Your task to perform on an android device: manage bookmarks in the chrome app Image 0: 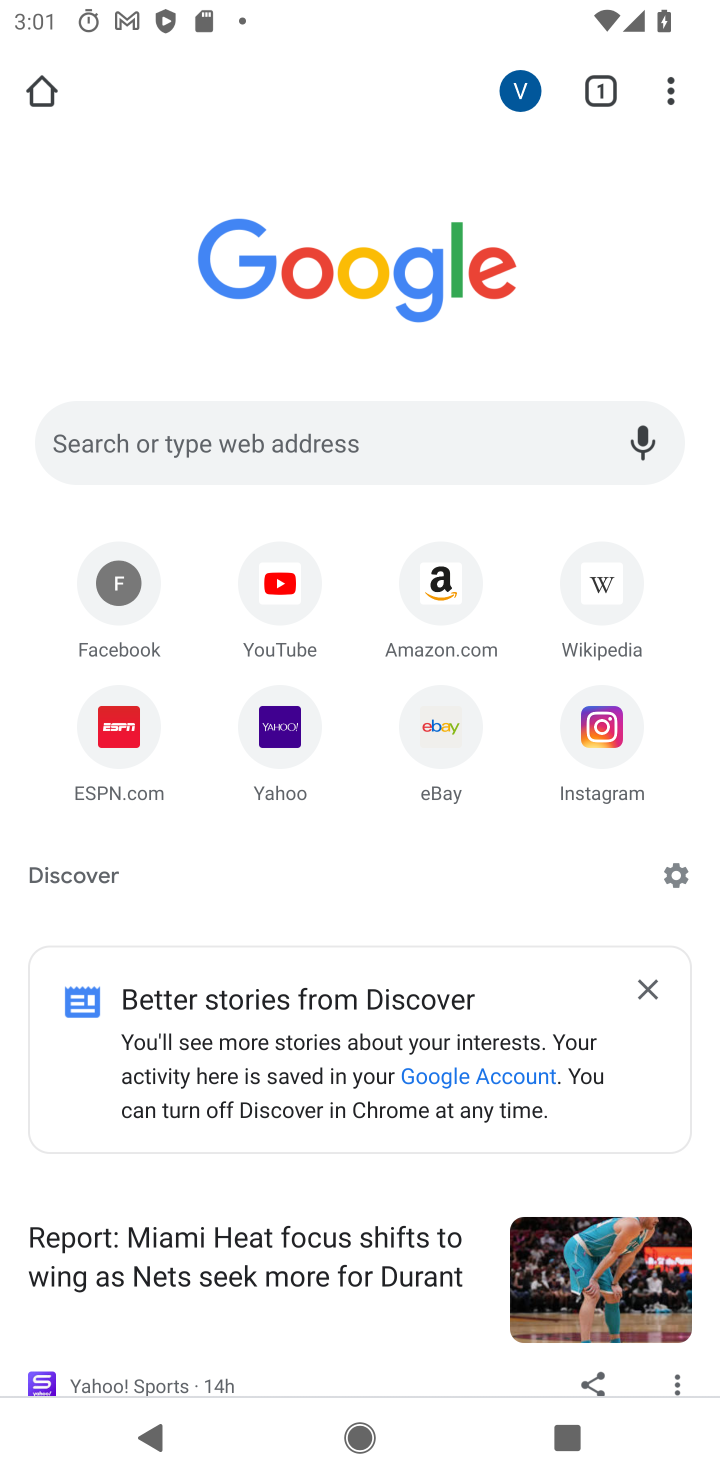
Step 0: press home button
Your task to perform on an android device: manage bookmarks in the chrome app Image 1: 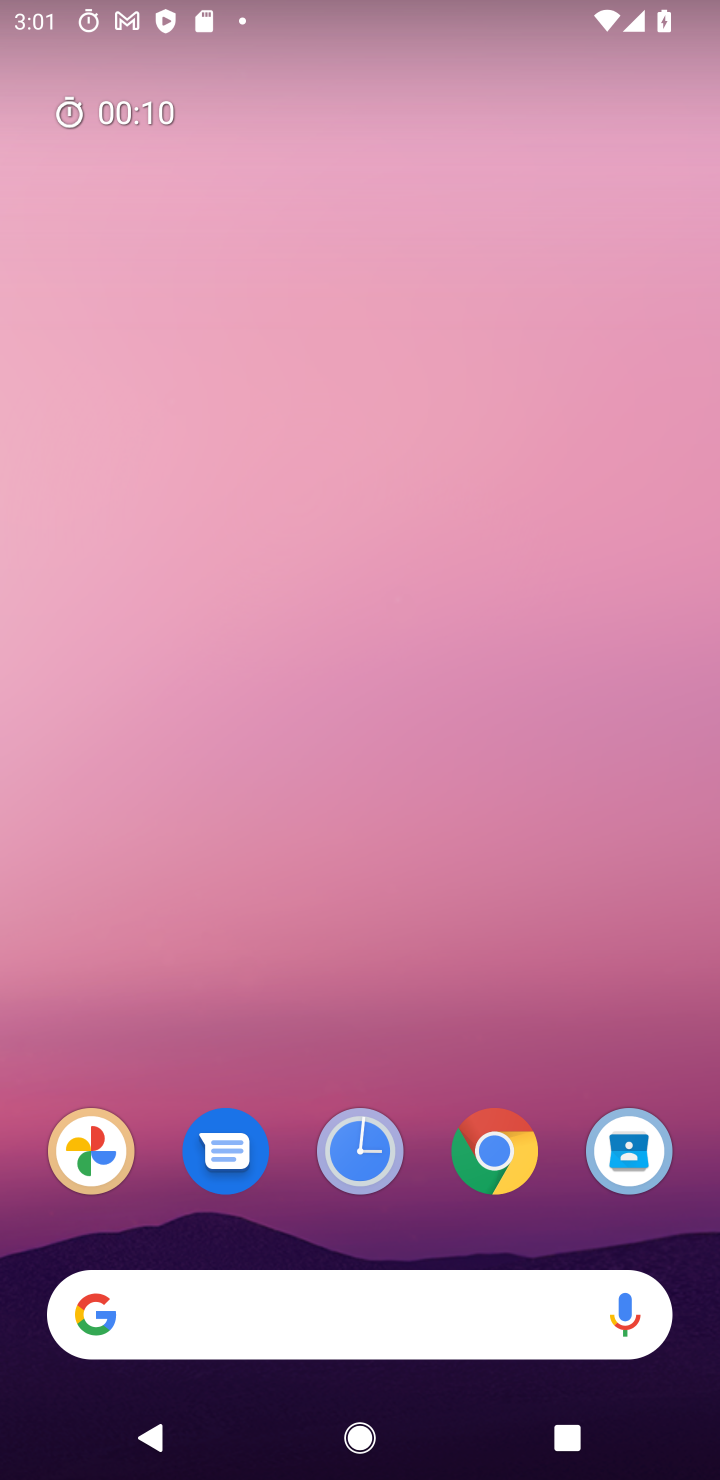
Step 1: drag from (382, 1115) to (377, 117)
Your task to perform on an android device: manage bookmarks in the chrome app Image 2: 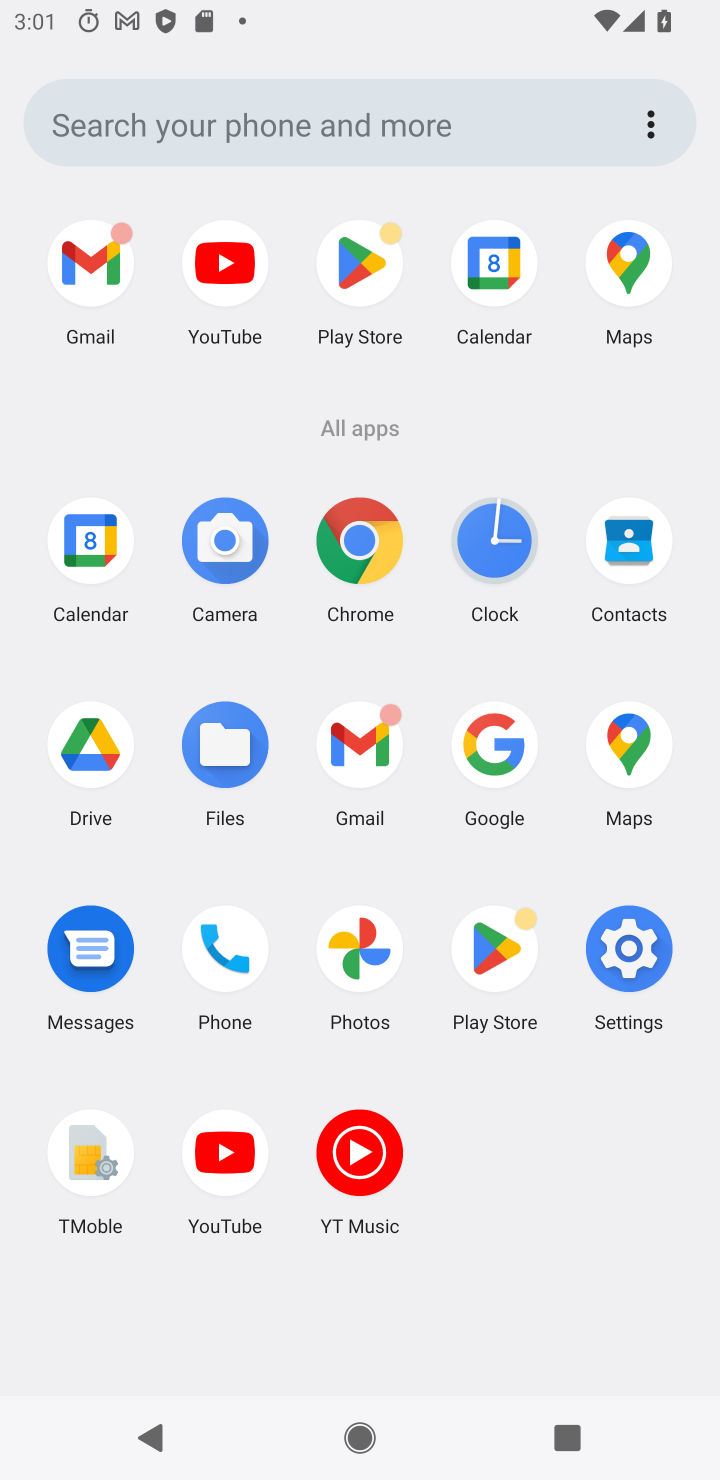
Step 2: click (359, 512)
Your task to perform on an android device: manage bookmarks in the chrome app Image 3: 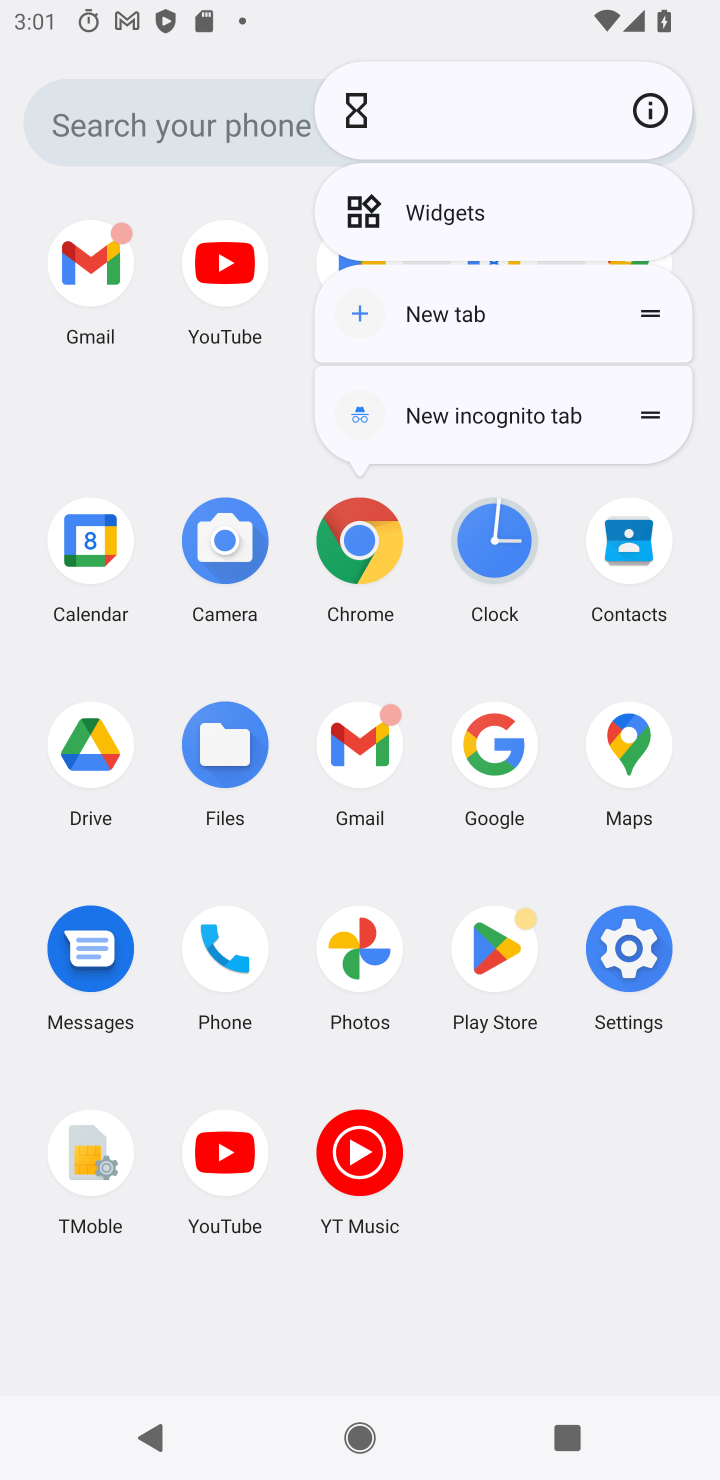
Step 3: click (359, 528)
Your task to perform on an android device: manage bookmarks in the chrome app Image 4: 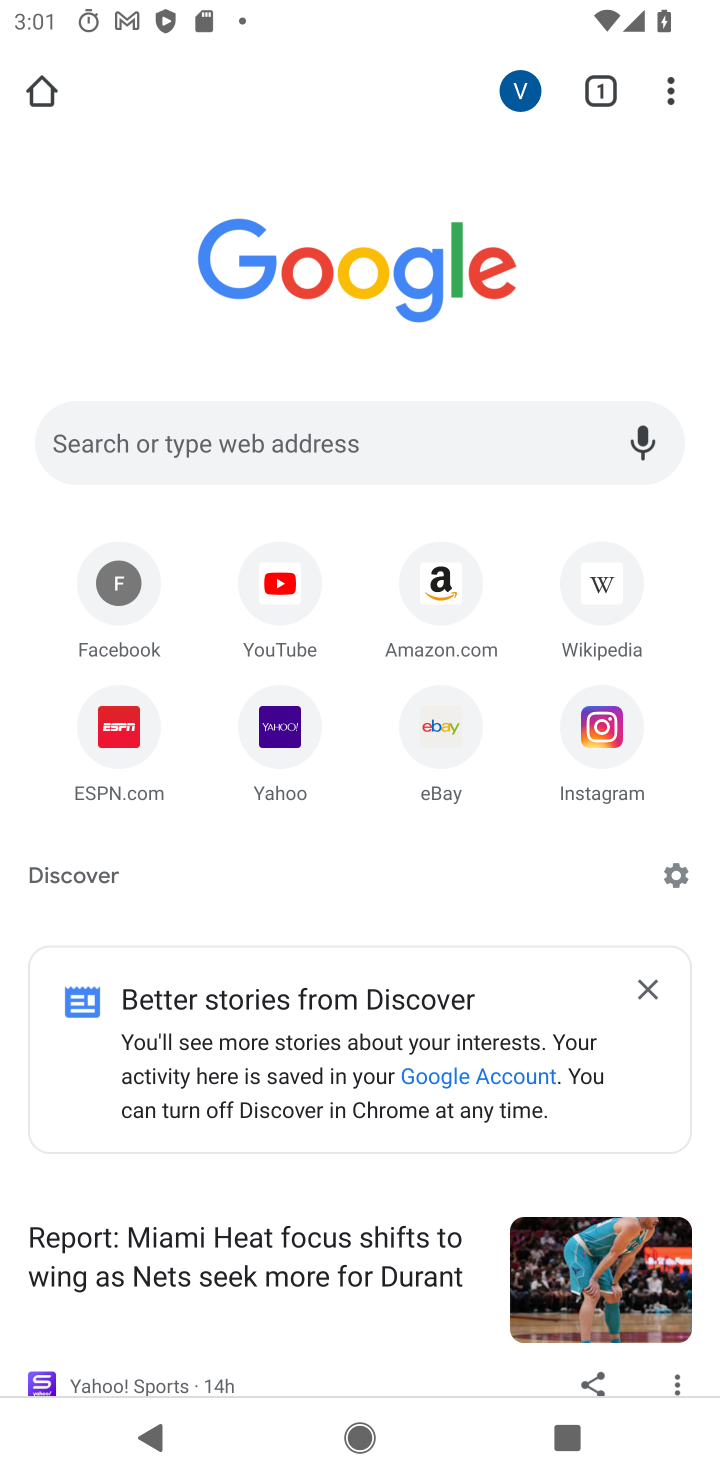
Step 4: click (359, 442)
Your task to perform on an android device: manage bookmarks in the chrome app Image 5: 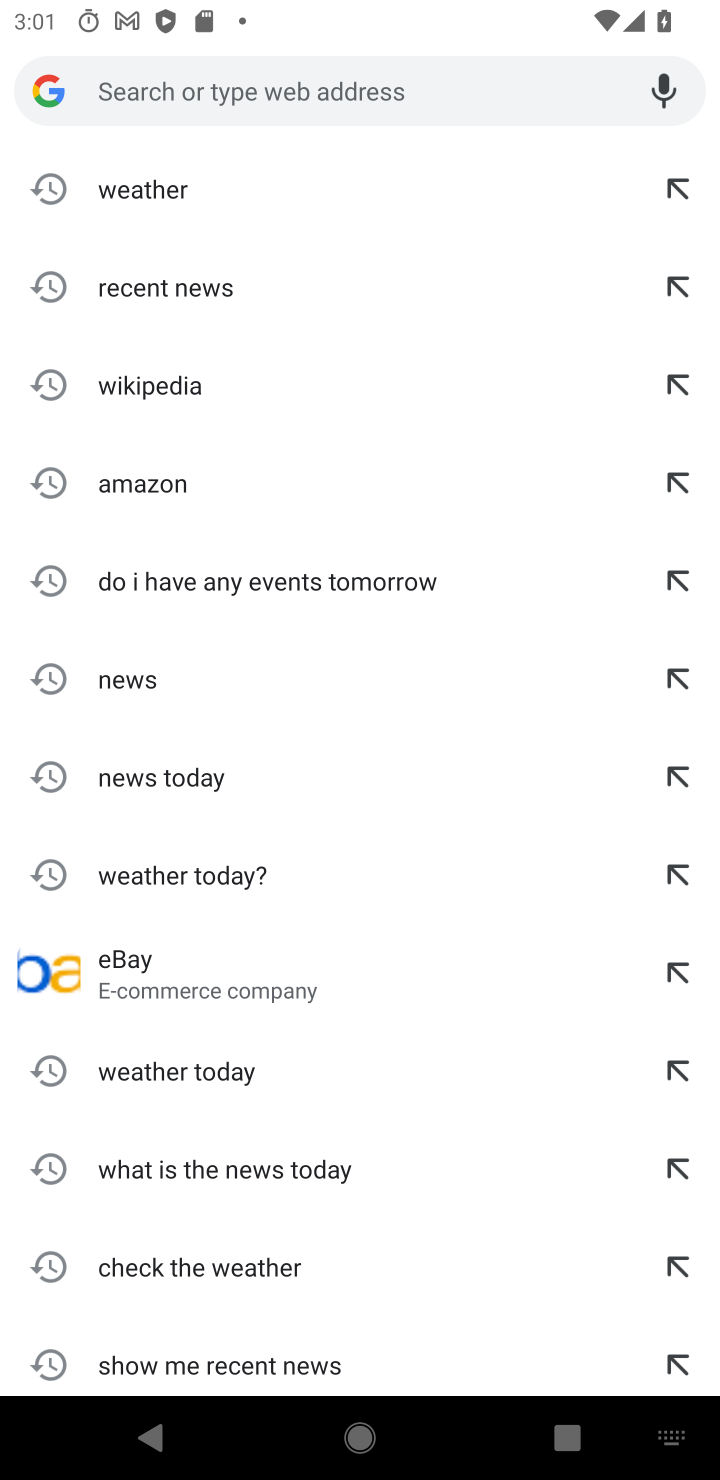
Step 5: press back button
Your task to perform on an android device: manage bookmarks in the chrome app Image 6: 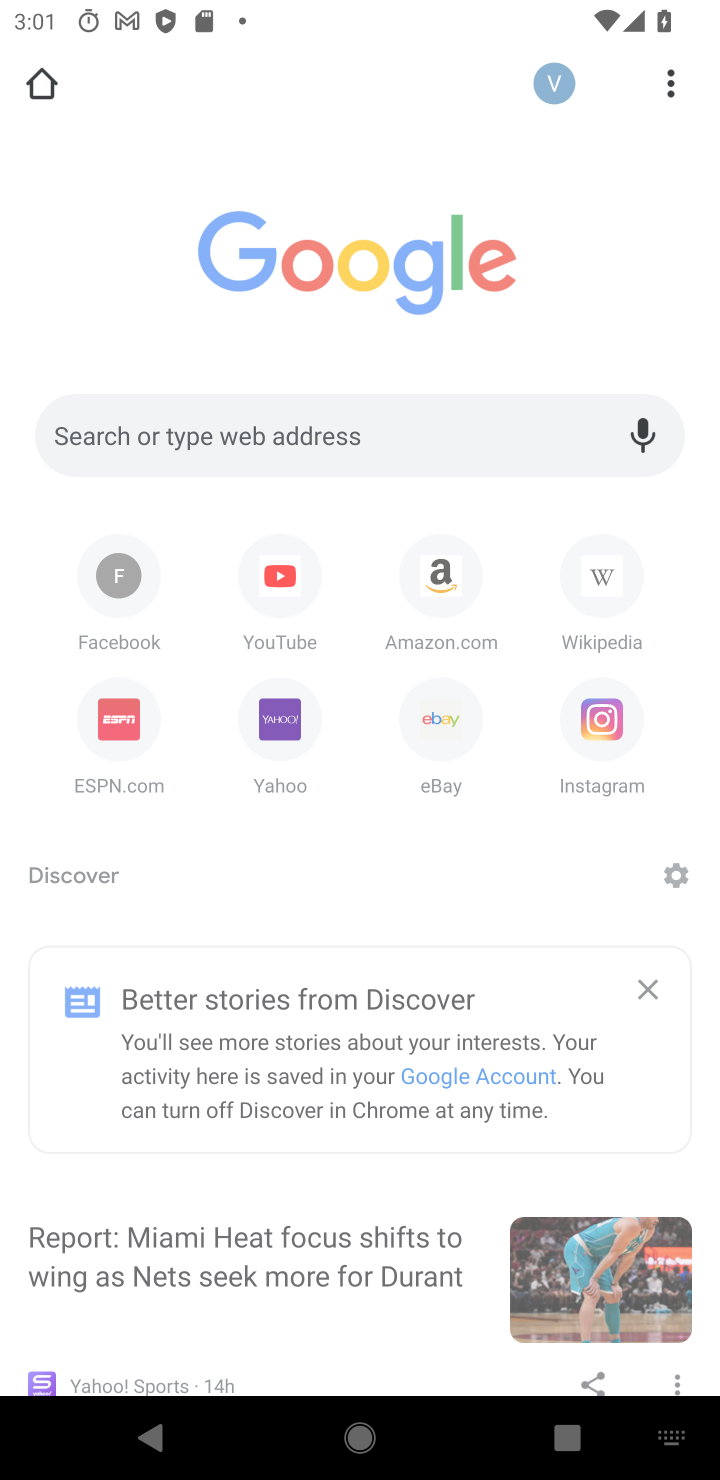
Step 6: press back button
Your task to perform on an android device: manage bookmarks in the chrome app Image 7: 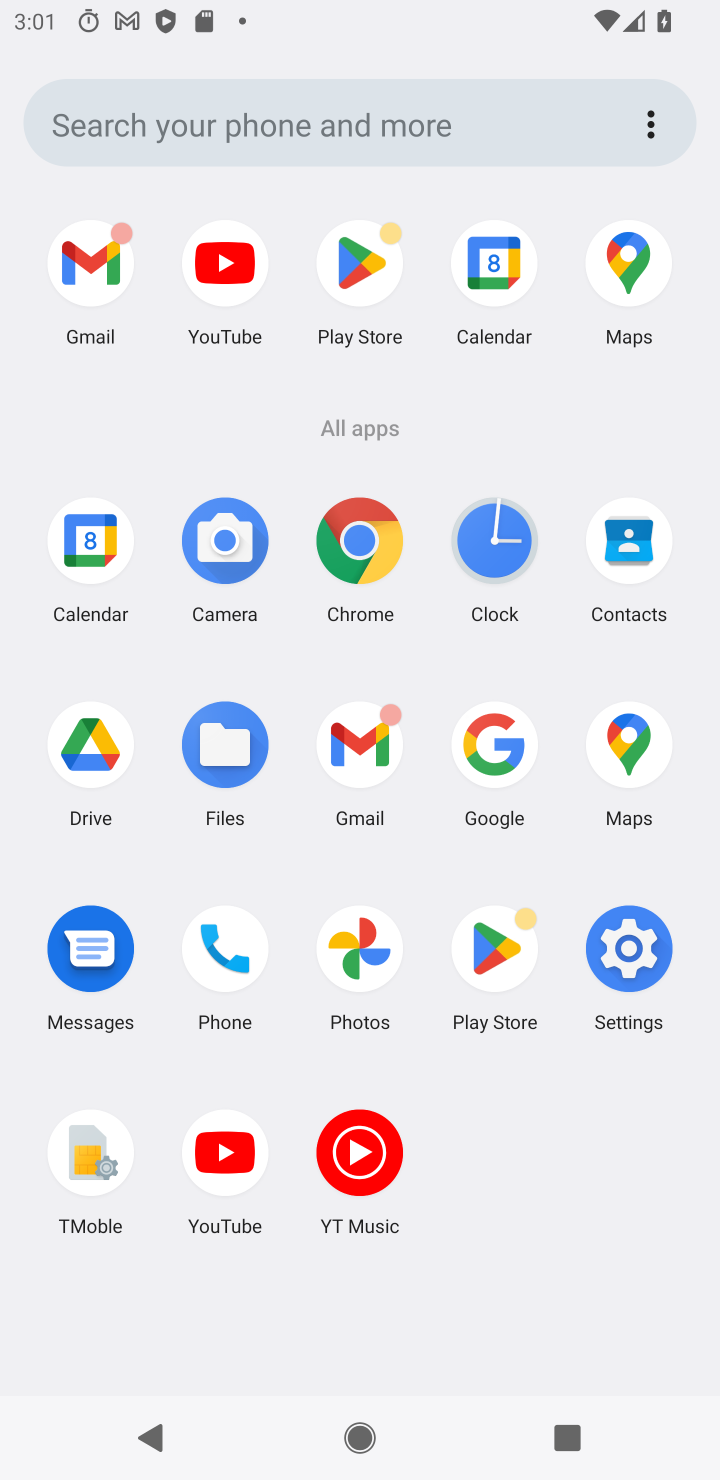
Step 7: click (371, 599)
Your task to perform on an android device: manage bookmarks in the chrome app Image 8: 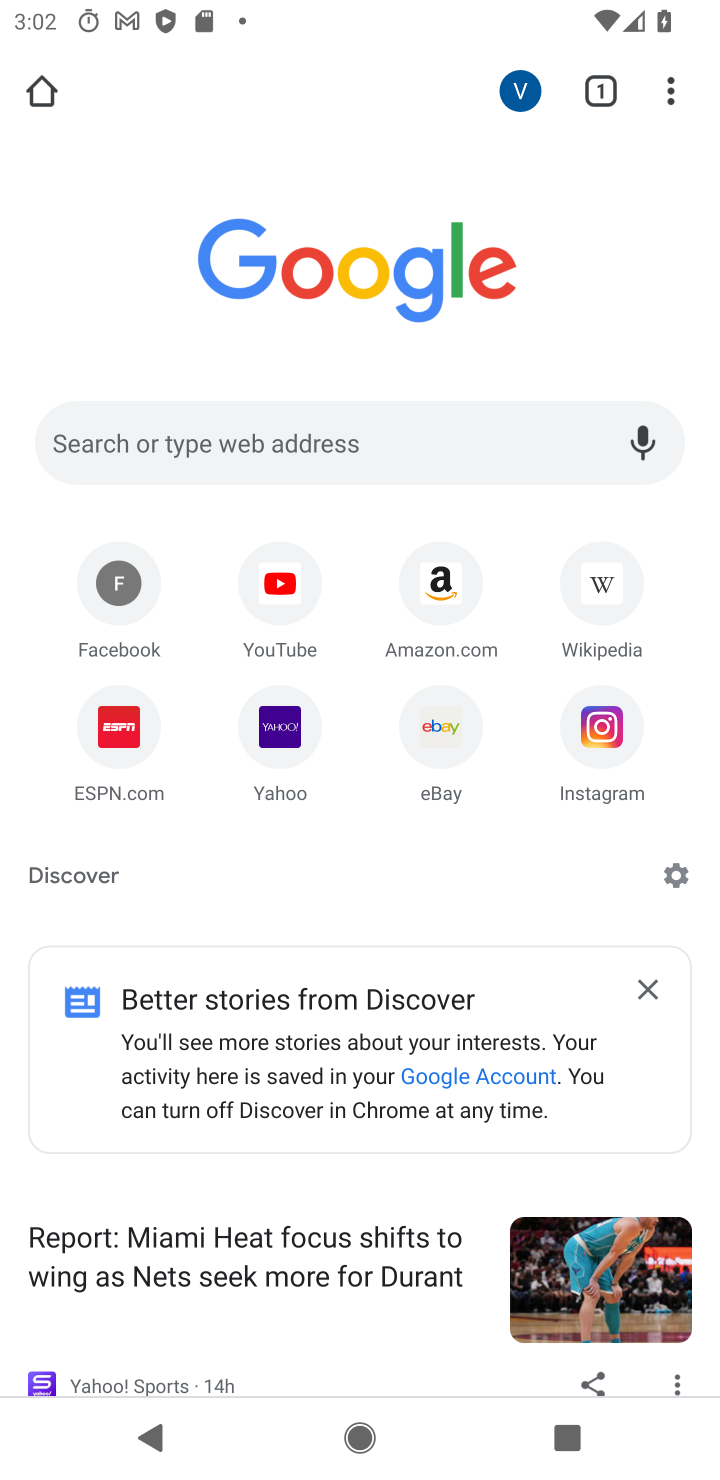
Step 8: click (343, 431)
Your task to perform on an android device: manage bookmarks in the chrome app Image 9: 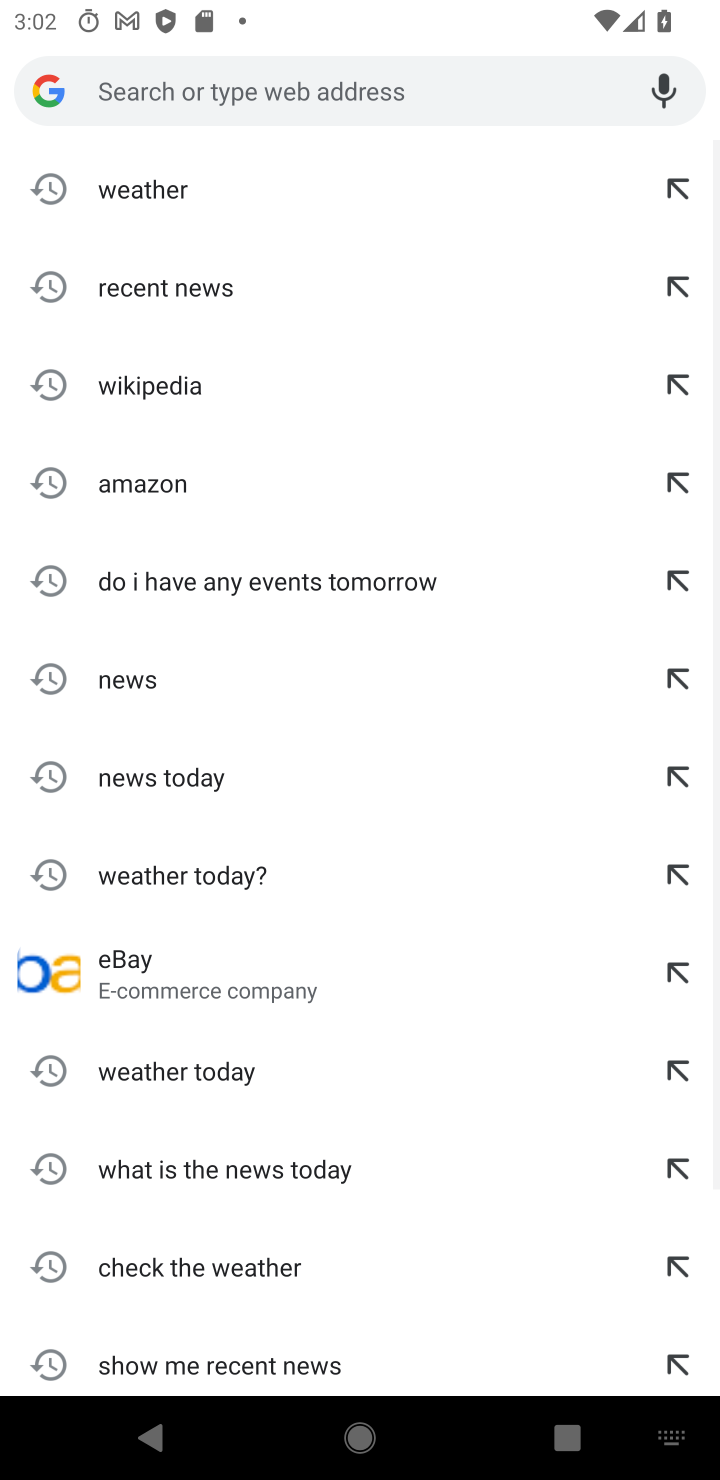
Step 9: press back button
Your task to perform on an android device: manage bookmarks in the chrome app Image 10: 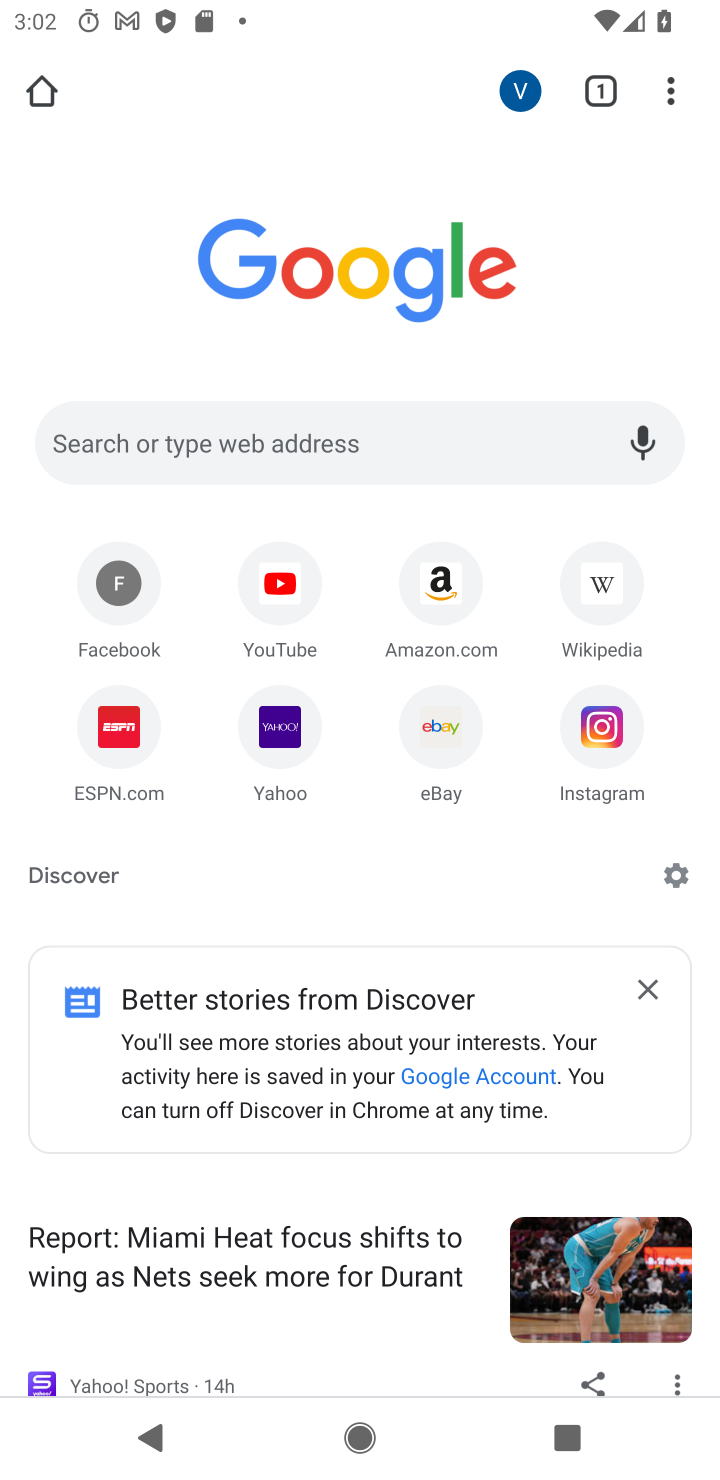
Step 10: click (687, 97)
Your task to perform on an android device: manage bookmarks in the chrome app Image 11: 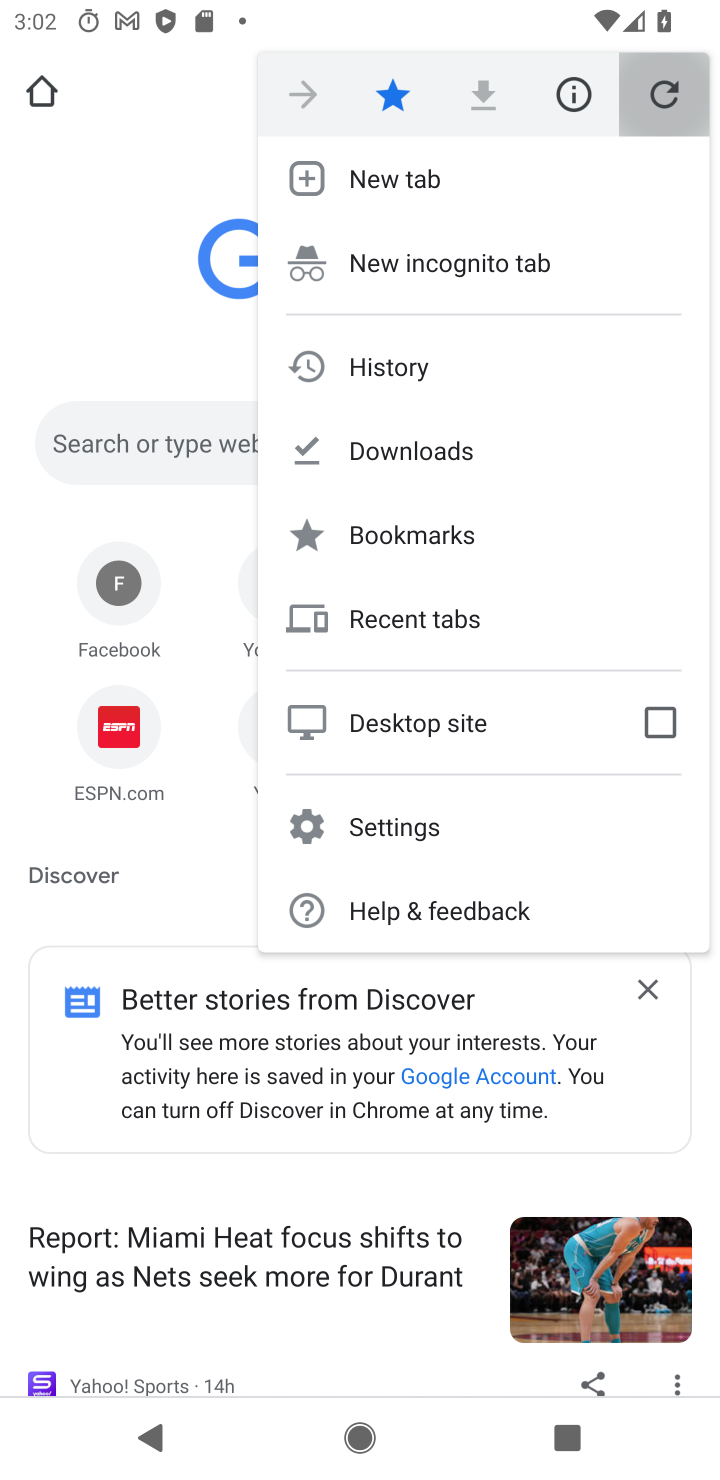
Step 11: click (434, 57)
Your task to perform on an android device: manage bookmarks in the chrome app Image 12: 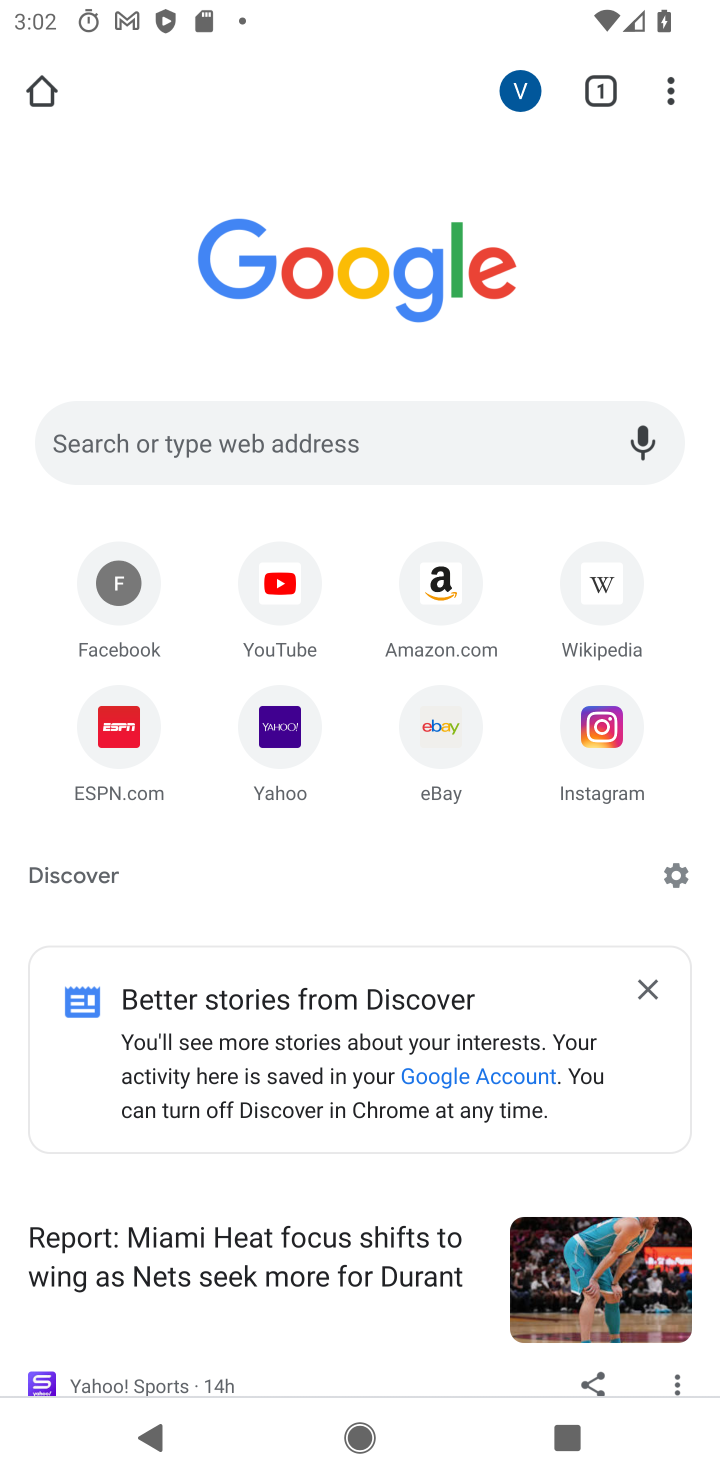
Step 12: click (287, 758)
Your task to perform on an android device: manage bookmarks in the chrome app Image 13: 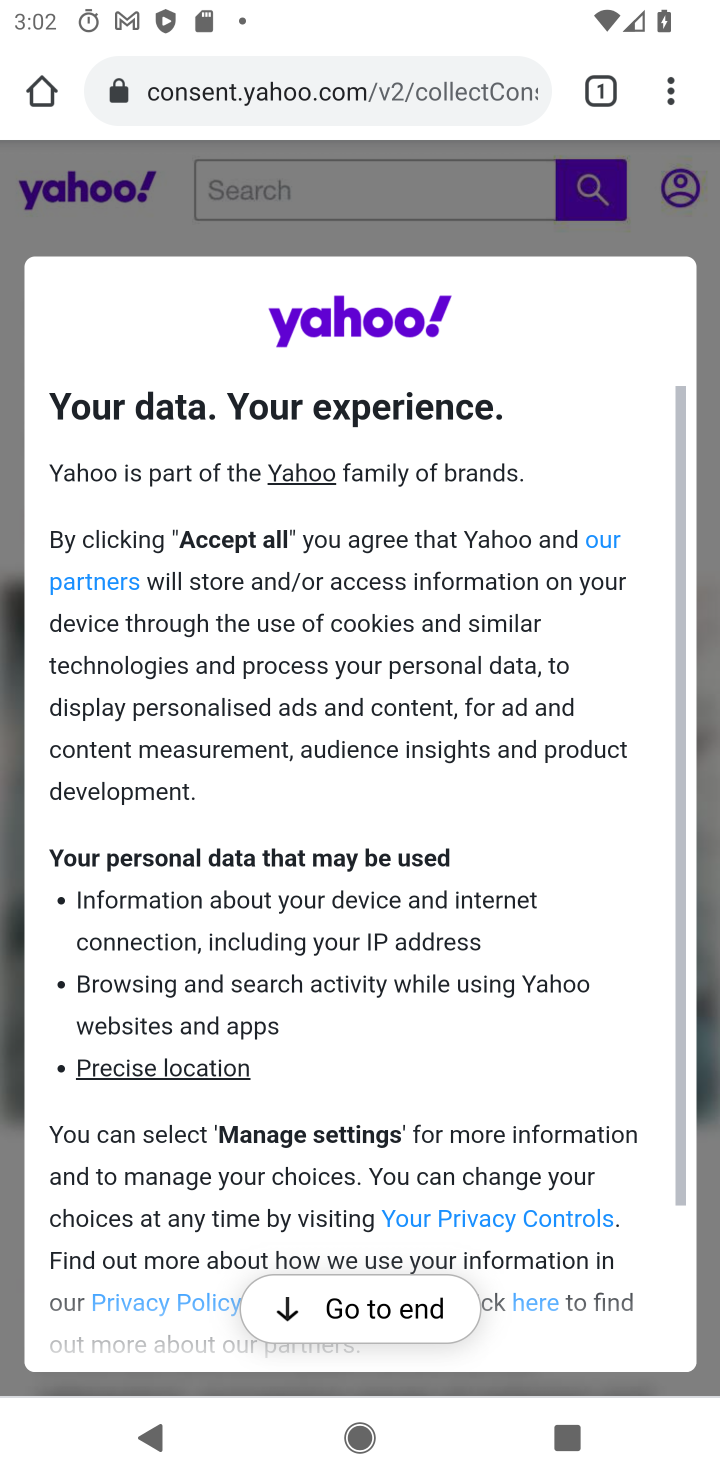
Step 13: click (673, 104)
Your task to perform on an android device: manage bookmarks in the chrome app Image 14: 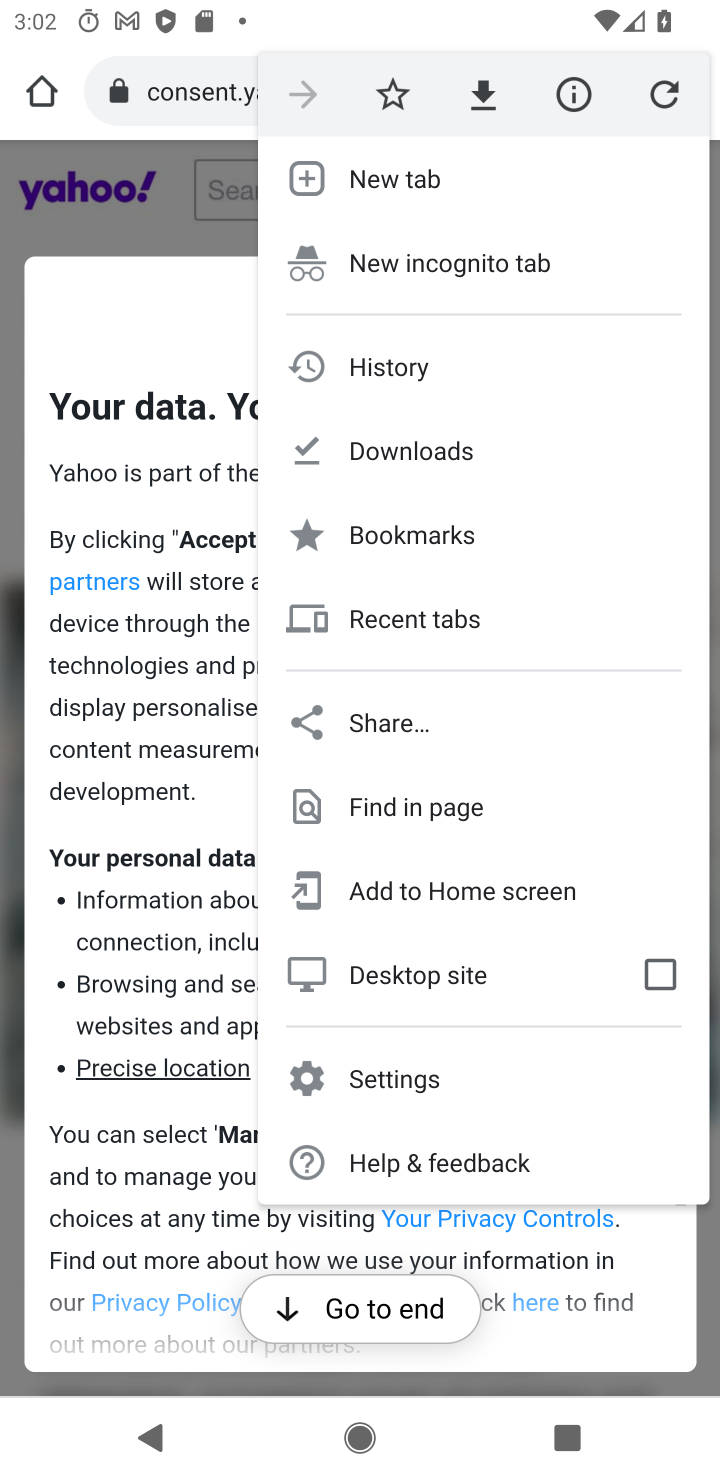
Step 14: click (395, 96)
Your task to perform on an android device: manage bookmarks in the chrome app Image 15: 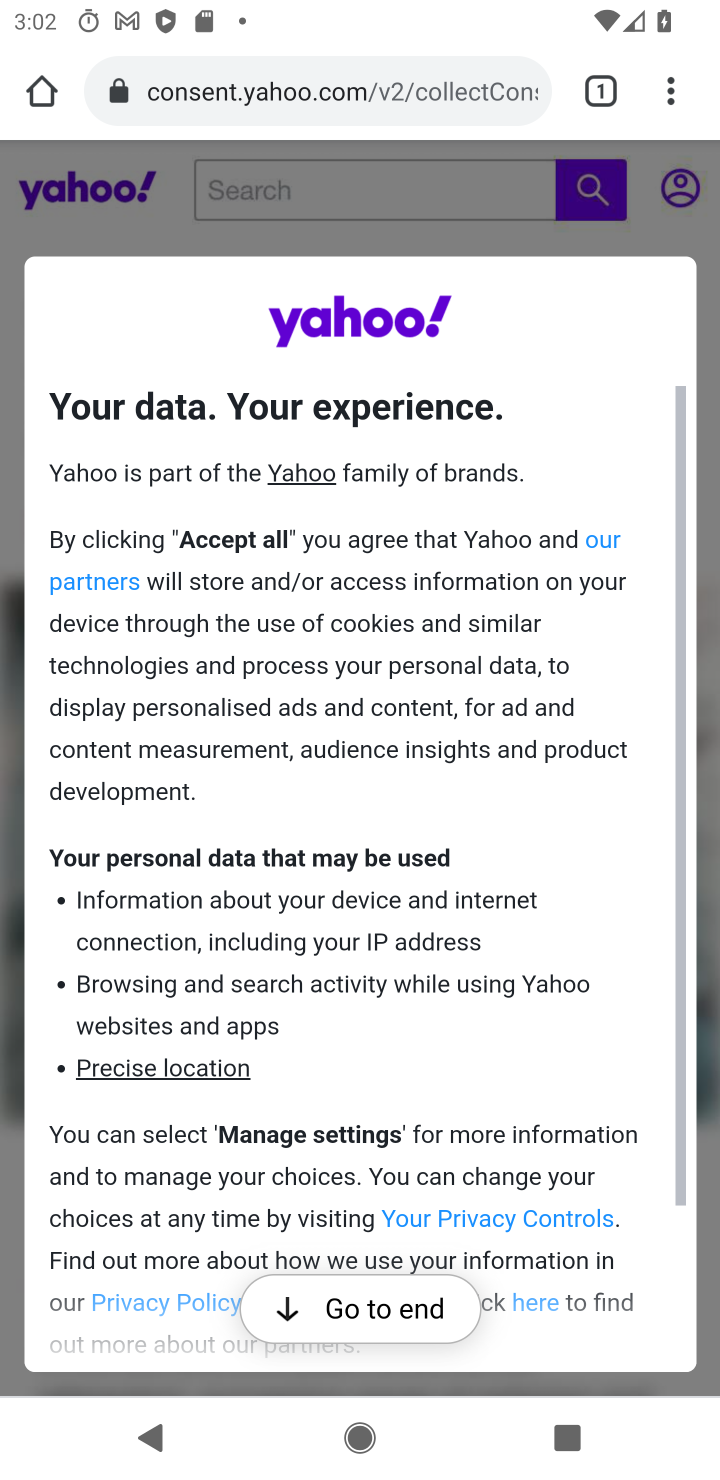
Step 15: task complete